Your task to perform on an android device: Do I have any events this weekend? Image 0: 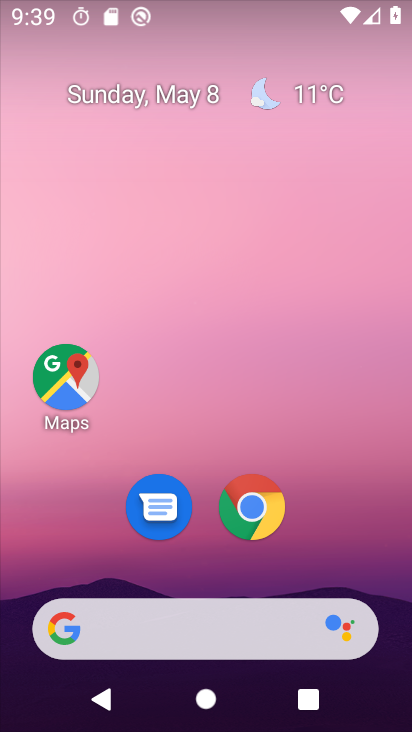
Step 0: drag from (381, 527) to (327, 151)
Your task to perform on an android device: Do I have any events this weekend? Image 1: 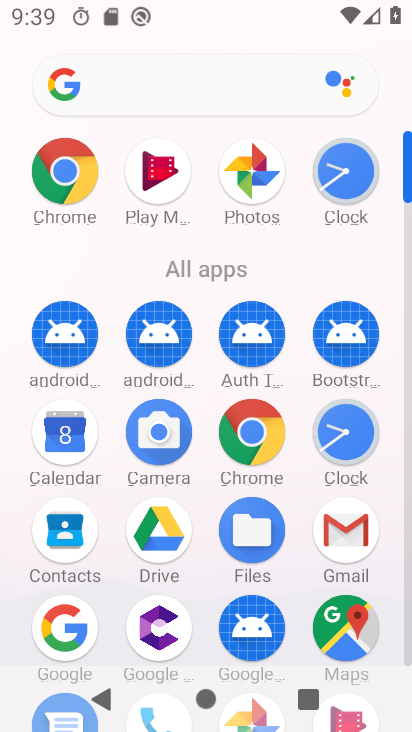
Step 1: drag from (321, 111) to (324, 670)
Your task to perform on an android device: Do I have any events this weekend? Image 2: 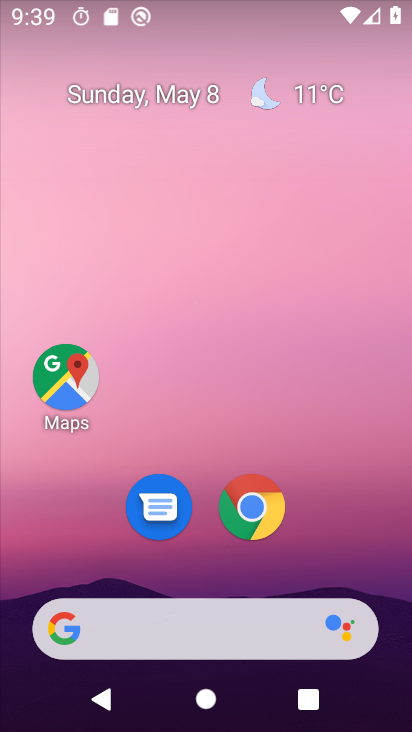
Step 2: click (320, 92)
Your task to perform on an android device: Do I have any events this weekend? Image 3: 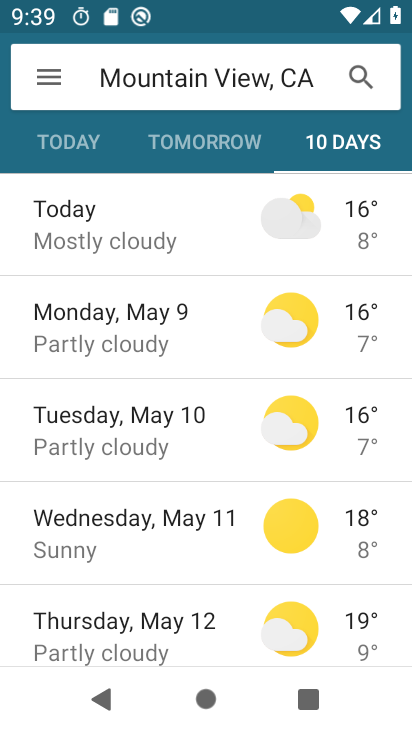
Step 3: task complete